Your task to perform on an android device: set default search engine in the chrome app Image 0: 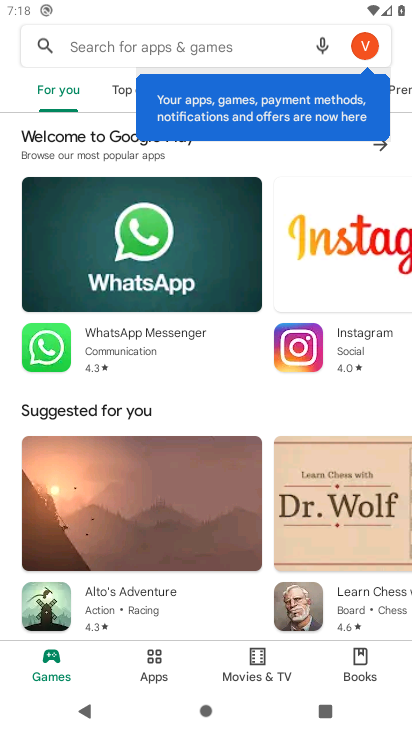
Step 0: press home button
Your task to perform on an android device: set default search engine in the chrome app Image 1: 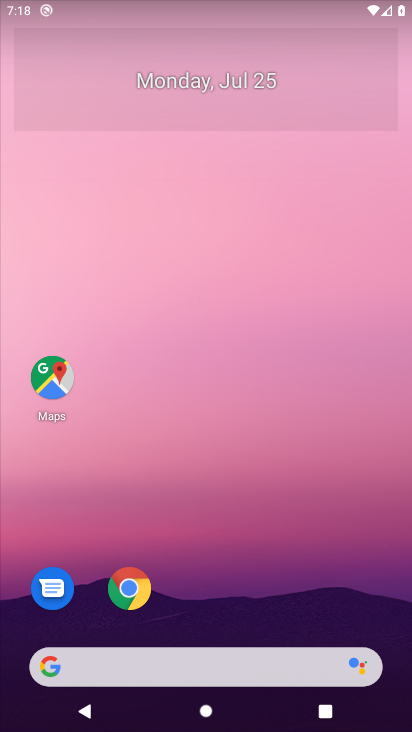
Step 1: click (125, 584)
Your task to perform on an android device: set default search engine in the chrome app Image 2: 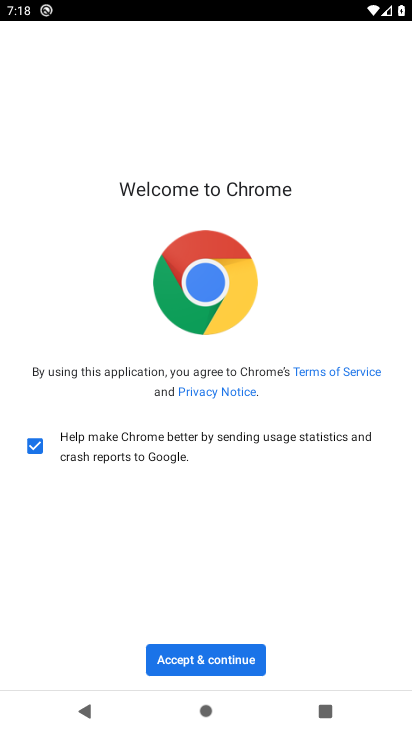
Step 2: click (215, 657)
Your task to perform on an android device: set default search engine in the chrome app Image 3: 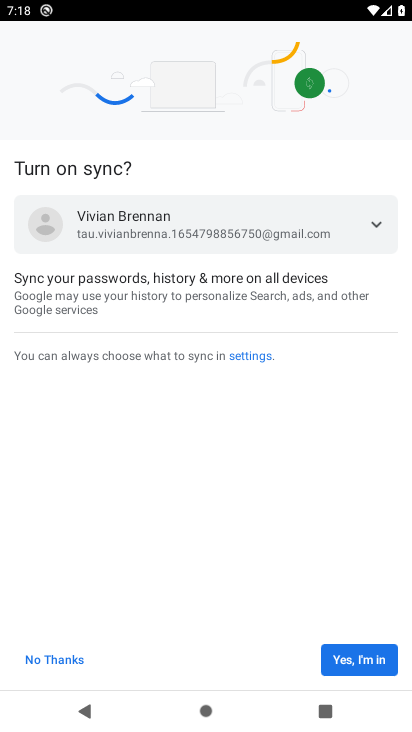
Step 3: click (367, 651)
Your task to perform on an android device: set default search engine in the chrome app Image 4: 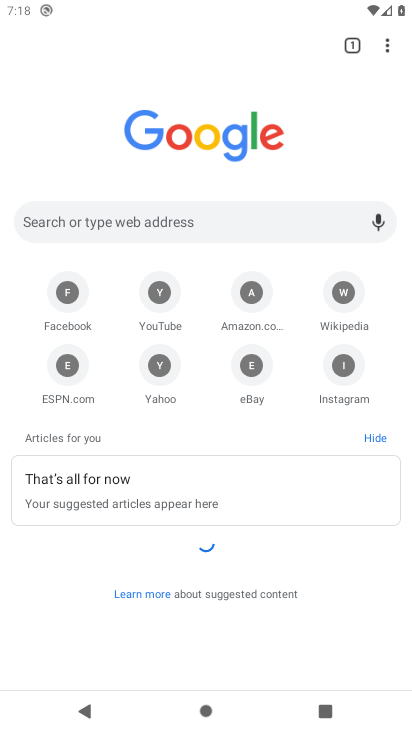
Step 4: task complete